Your task to perform on an android device: Open the web browser Image 0: 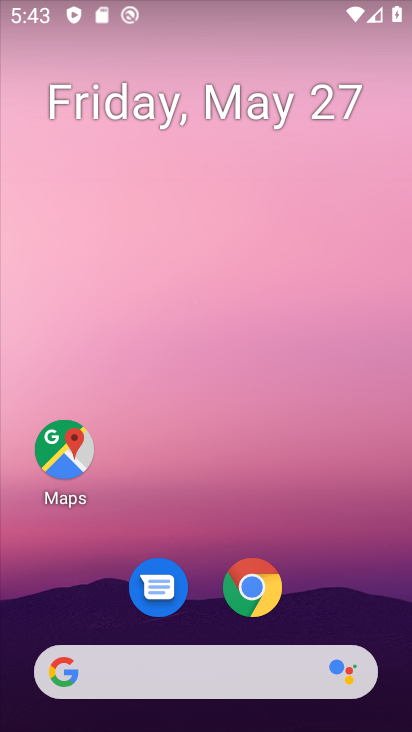
Step 0: click (255, 587)
Your task to perform on an android device: Open the web browser Image 1: 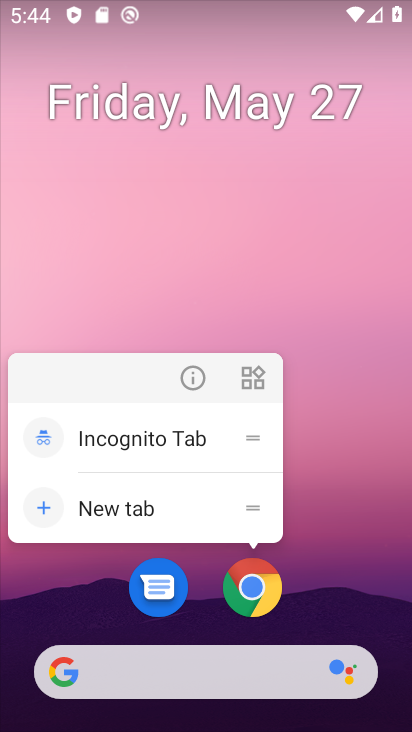
Step 1: click (255, 567)
Your task to perform on an android device: Open the web browser Image 2: 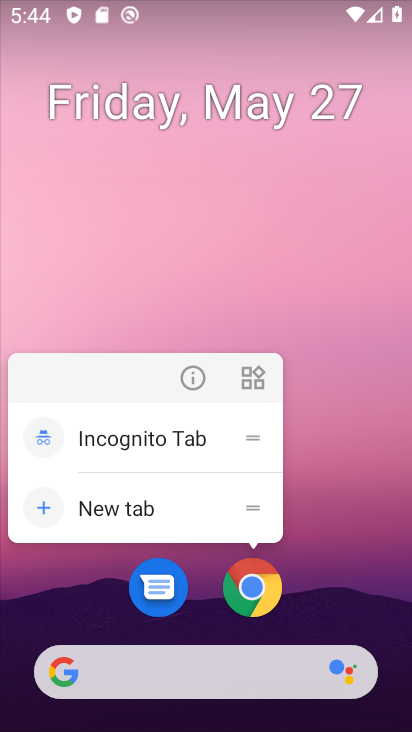
Step 2: click (342, 477)
Your task to perform on an android device: Open the web browser Image 3: 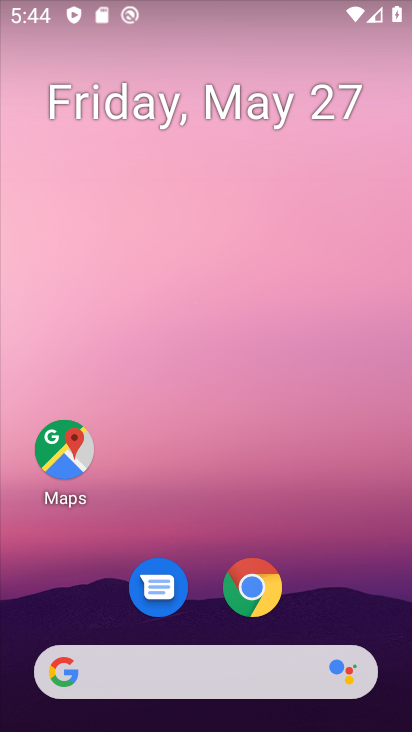
Step 3: drag from (356, 570) to (326, 11)
Your task to perform on an android device: Open the web browser Image 4: 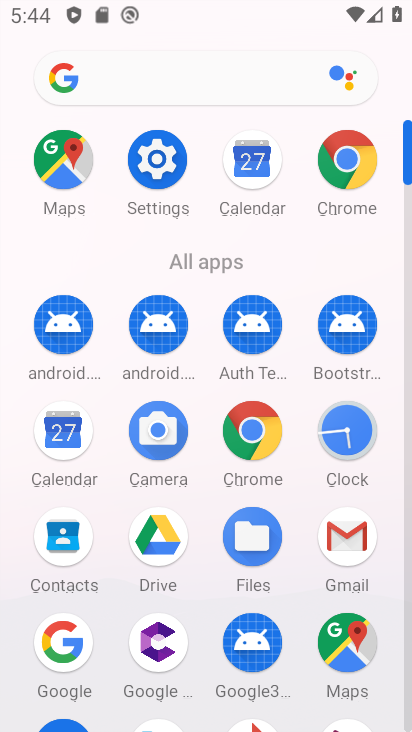
Step 4: click (243, 417)
Your task to perform on an android device: Open the web browser Image 5: 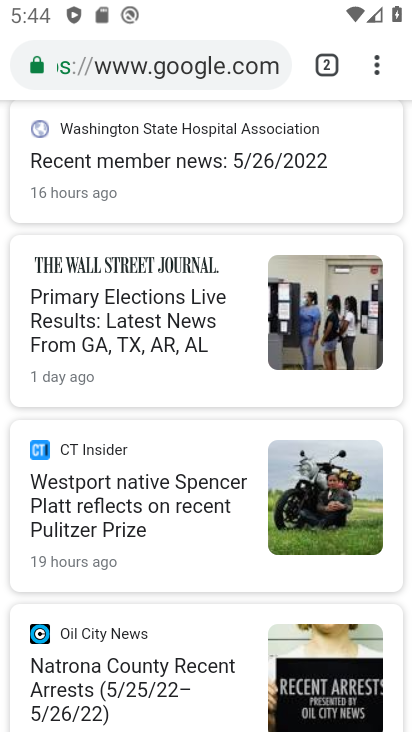
Step 5: click (342, 711)
Your task to perform on an android device: Open the web browser Image 6: 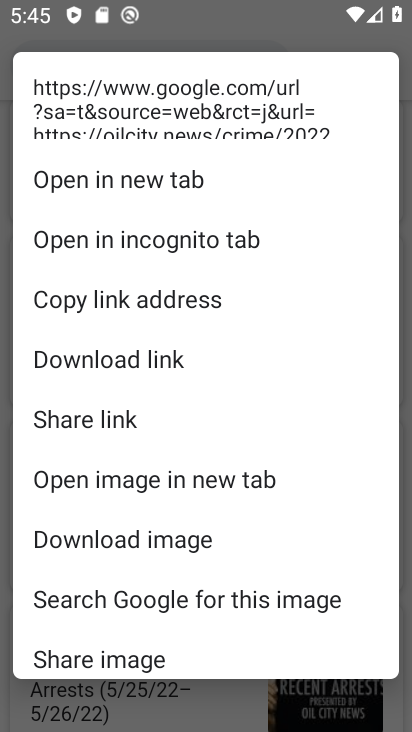
Step 6: task complete